Your task to perform on an android device: Go to privacy settings Image 0: 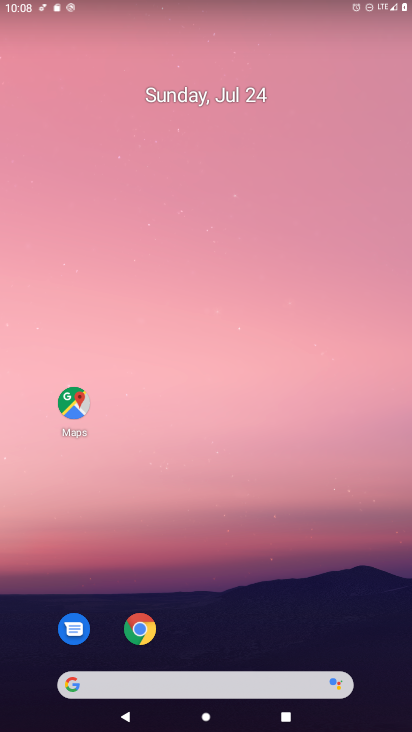
Step 0: drag from (355, 622) to (167, 66)
Your task to perform on an android device: Go to privacy settings Image 1: 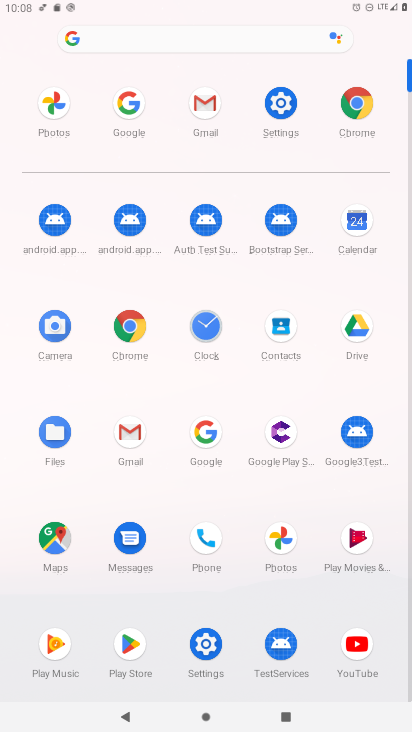
Step 1: click (205, 646)
Your task to perform on an android device: Go to privacy settings Image 2: 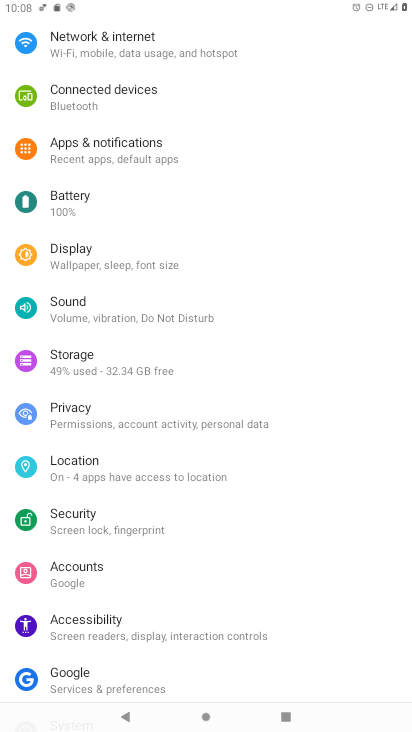
Step 2: click (94, 420)
Your task to perform on an android device: Go to privacy settings Image 3: 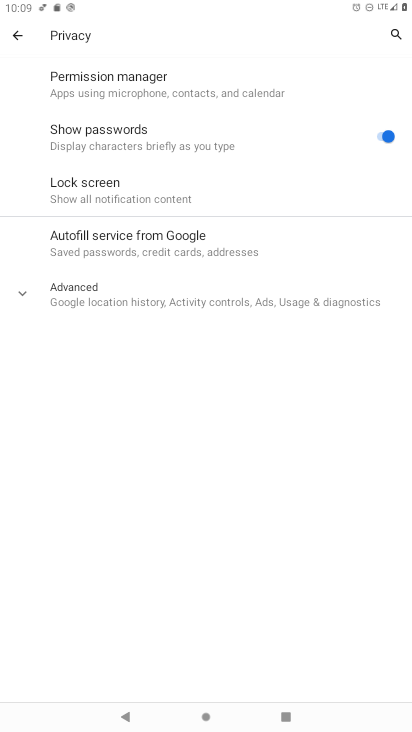
Step 3: task complete